Your task to perform on an android device: toggle sleep mode Image 0: 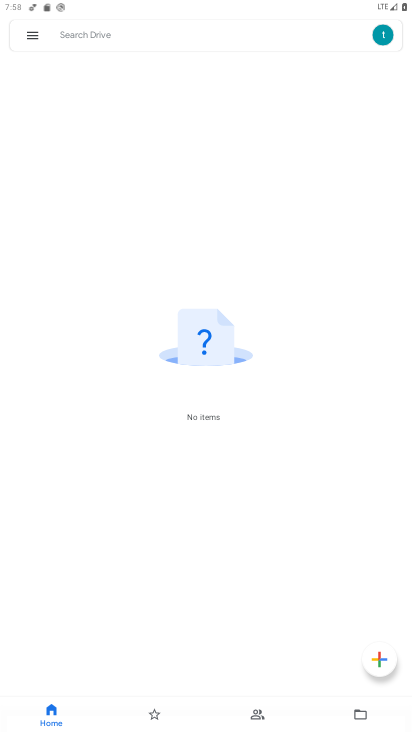
Step 0: press home button
Your task to perform on an android device: toggle sleep mode Image 1: 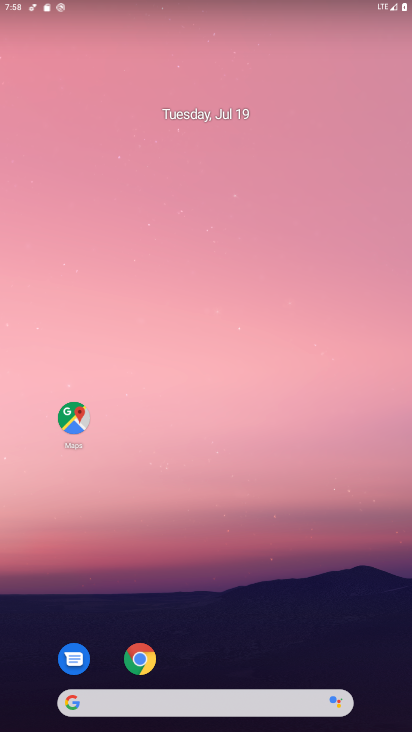
Step 1: drag from (195, 667) to (300, 29)
Your task to perform on an android device: toggle sleep mode Image 2: 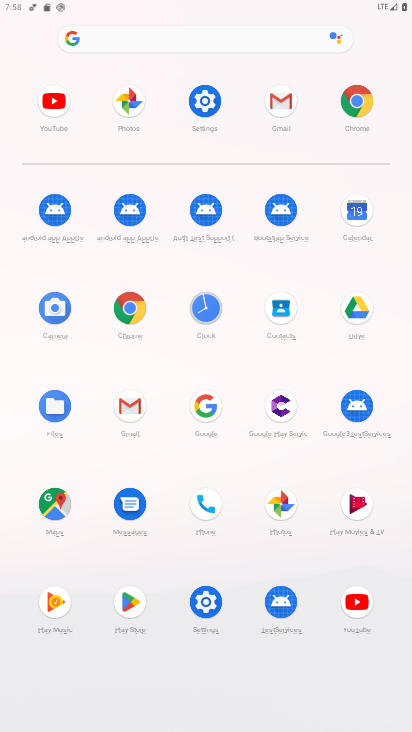
Step 2: click (199, 606)
Your task to perform on an android device: toggle sleep mode Image 3: 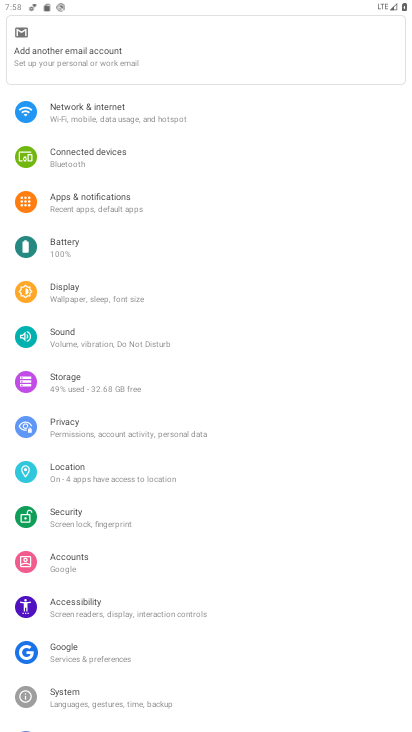
Step 3: drag from (174, 119) to (214, 622)
Your task to perform on an android device: toggle sleep mode Image 4: 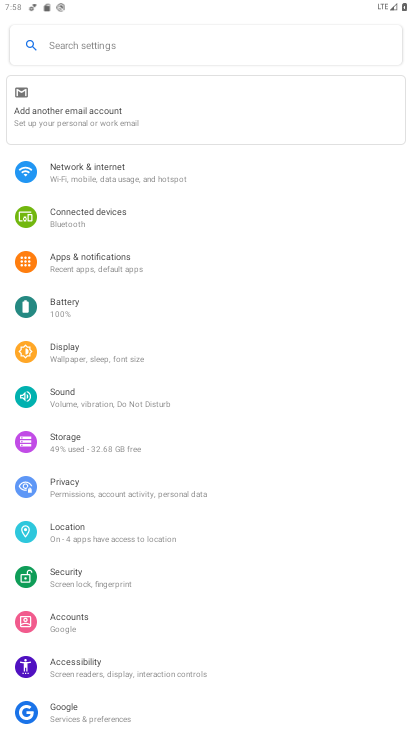
Step 4: click (161, 39)
Your task to perform on an android device: toggle sleep mode Image 5: 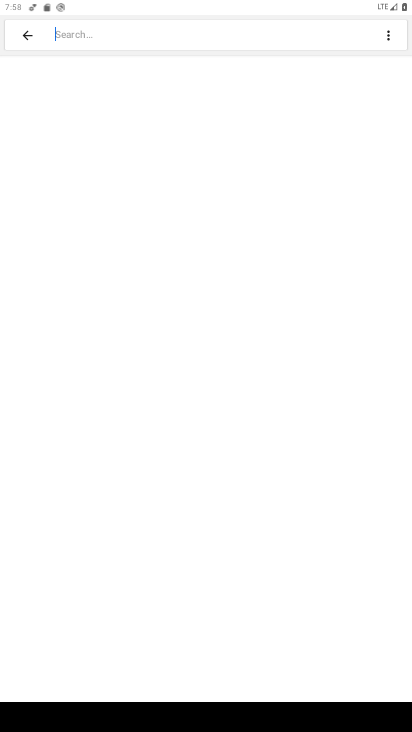
Step 5: type "sleep mode"
Your task to perform on an android device: toggle sleep mode Image 6: 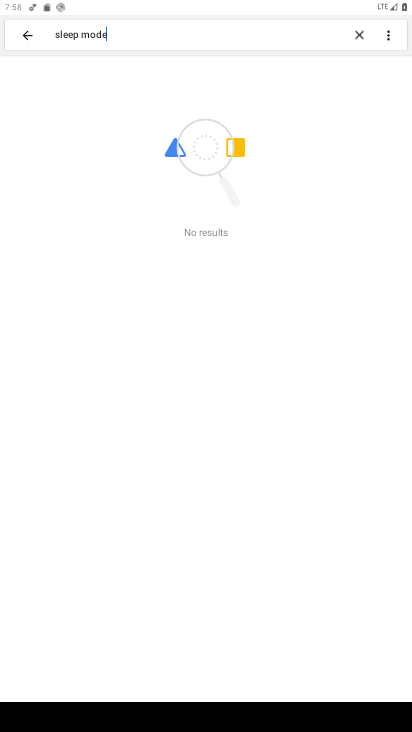
Step 6: click (159, 173)
Your task to perform on an android device: toggle sleep mode Image 7: 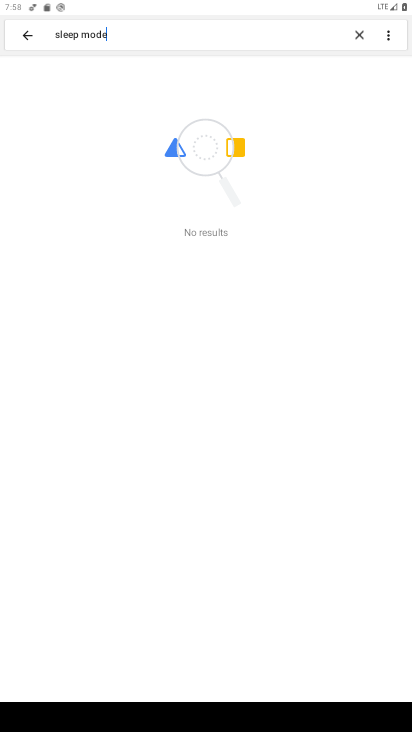
Step 7: task complete